Your task to perform on an android device: check google app version Image 0: 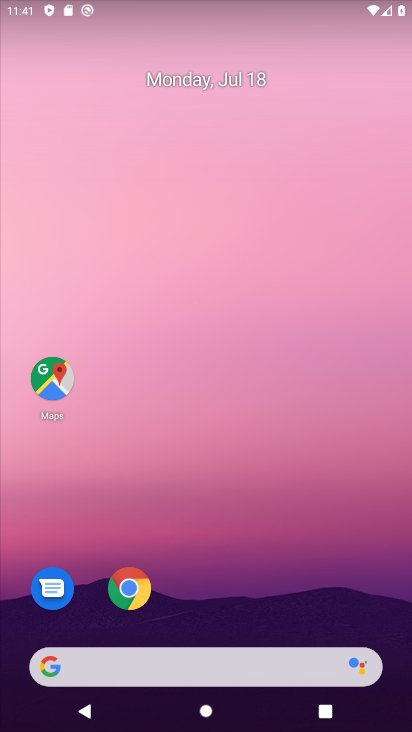
Step 0: drag from (243, 376) to (174, 371)
Your task to perform on an android device: check google app version Image 1: 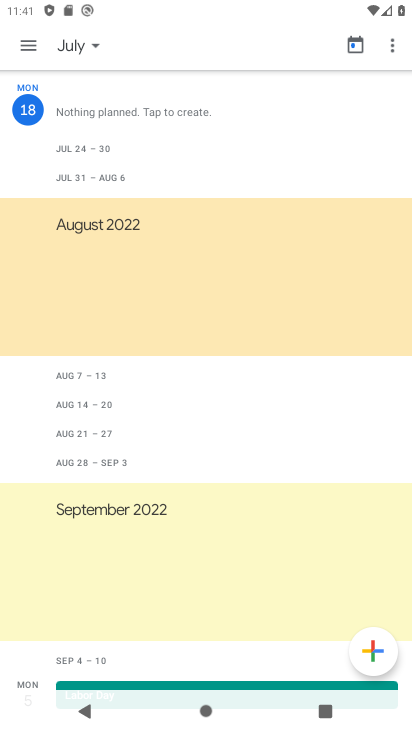
Step 1: click (161, 383)
Your task to perform on an android device: check google app version Image 2: 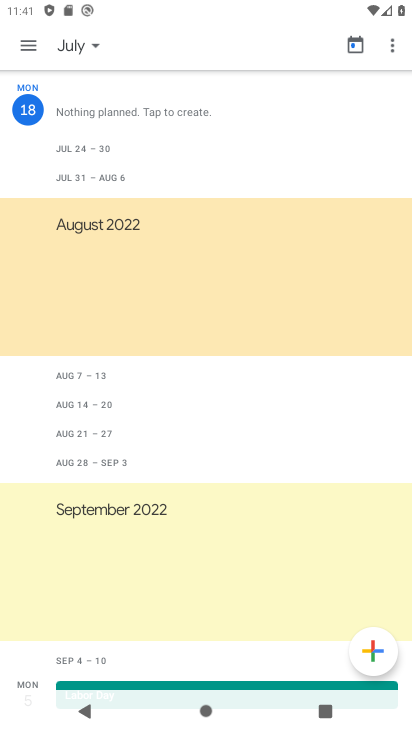
Step 2: click (160, 382)
Your task to perform on an android device: check google app version Image 3: 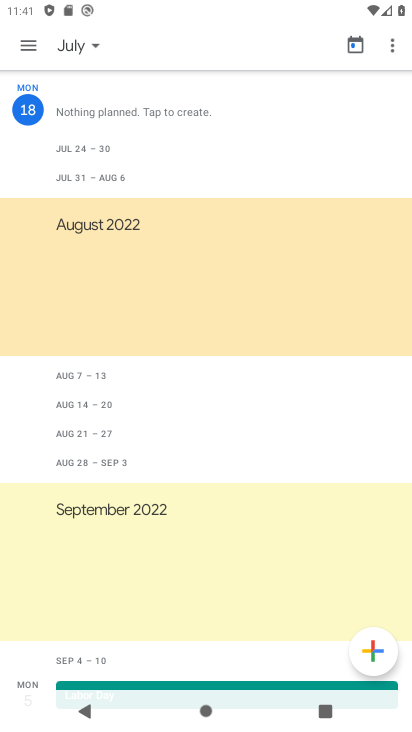
Step 3: press back button
Your task to perform on an android device: check google app version Image 4: 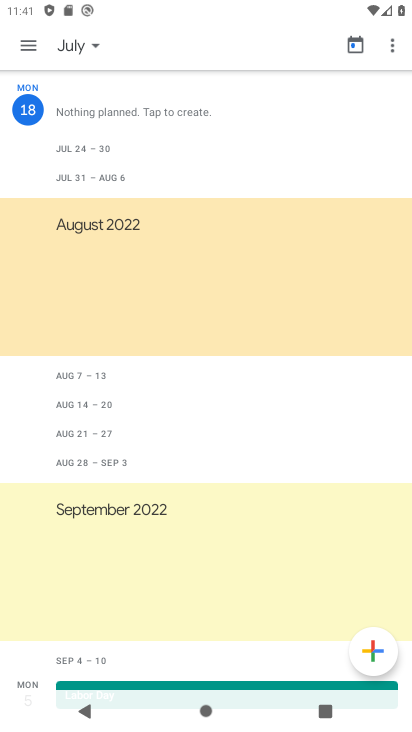
Step 4: press back button
Your task to perform on an android device: check google app version Image 5: 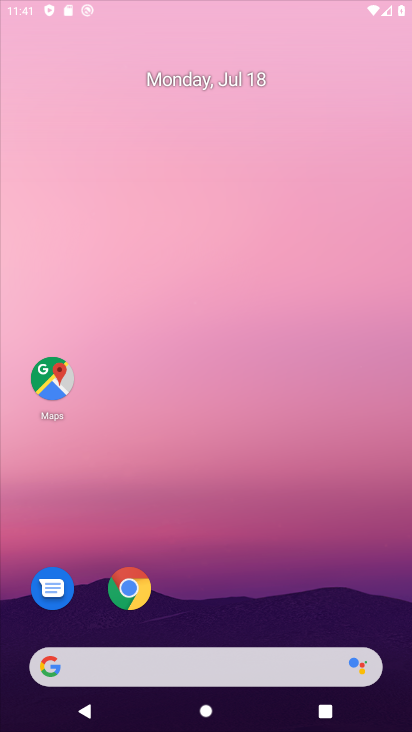
Step 5: press home button
Your task to perform on an android device: check google app version Image 6: 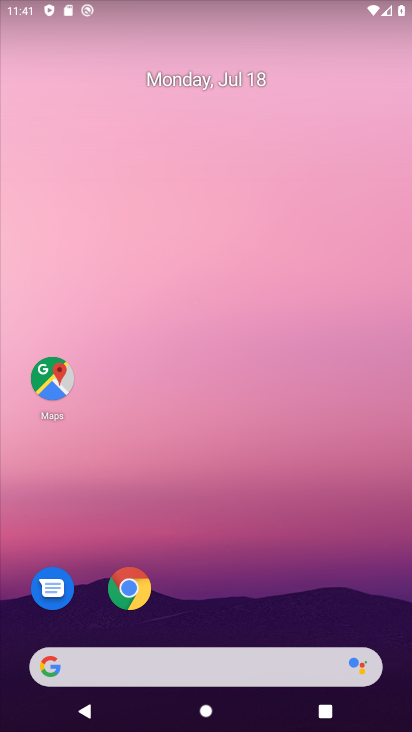
Step 6: press home button
Your task to perform on an android device: check google app version Image 7: 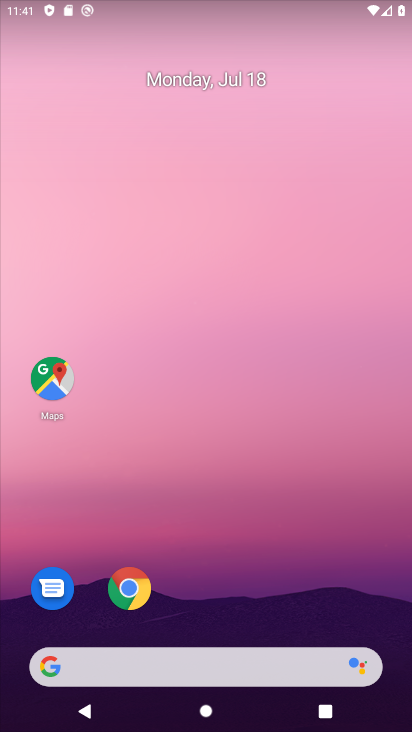
Step 7: drag from (219, 468) to (224, 269)
Your task to perform on an android device: check google app version Image 8: 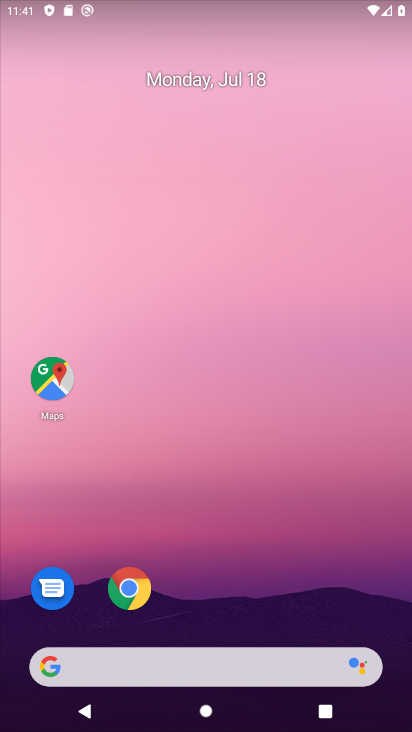
Step 8: drag from (251, 590) to (251, 139)
Your task to perform on an android device: check google app version Image 9: 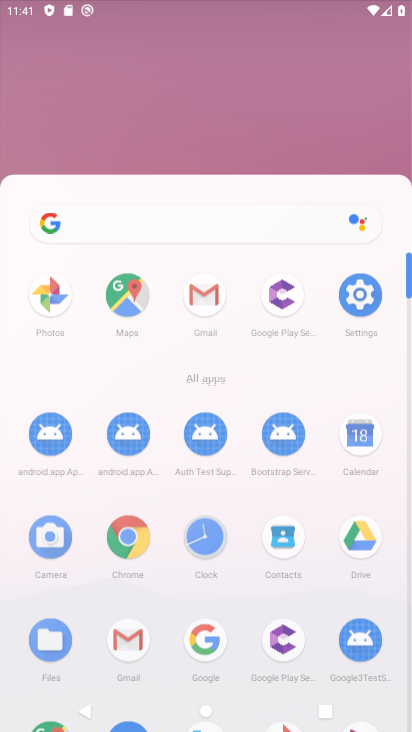
Step 9: drag from (196, 540) to (156, 96)
Your task to perform on an android device: check google app version Image 10: 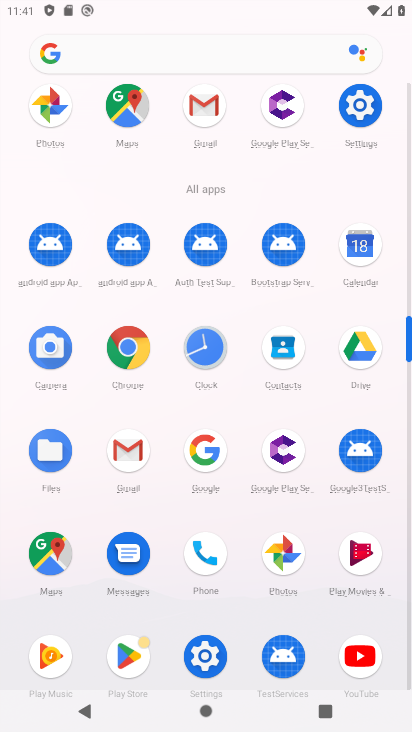
Step 10: click (213, 451)
Your task to perform on an android device: check google app version Image 11: 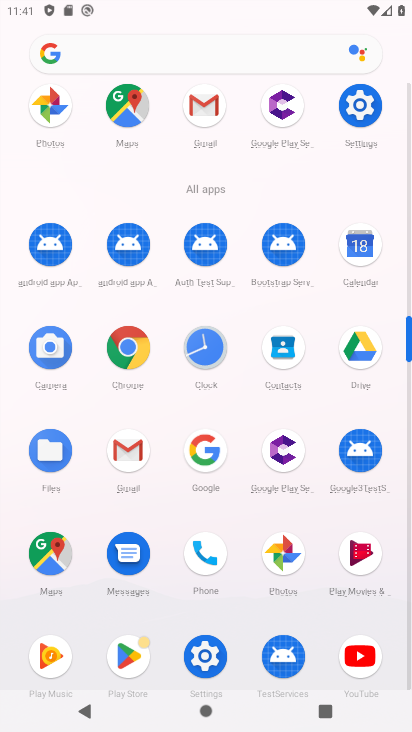
Step 11: click (212, 447)
Your task to perform on an android device: check google app version Image 12: 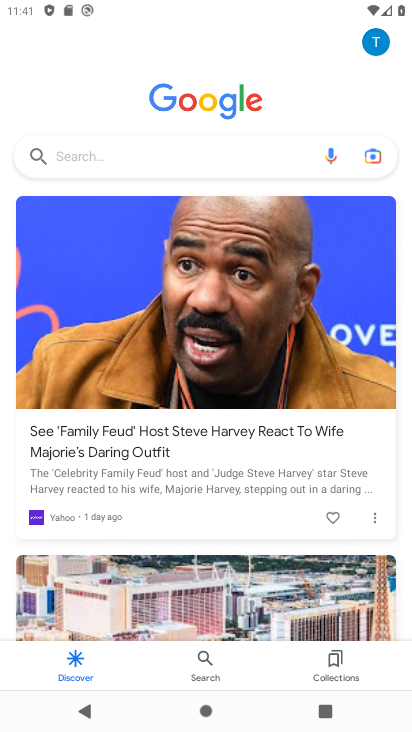
Step 12: drag from (375, 46) to (397, 297)
Your task to perform on an android device: check google app version Image 13: 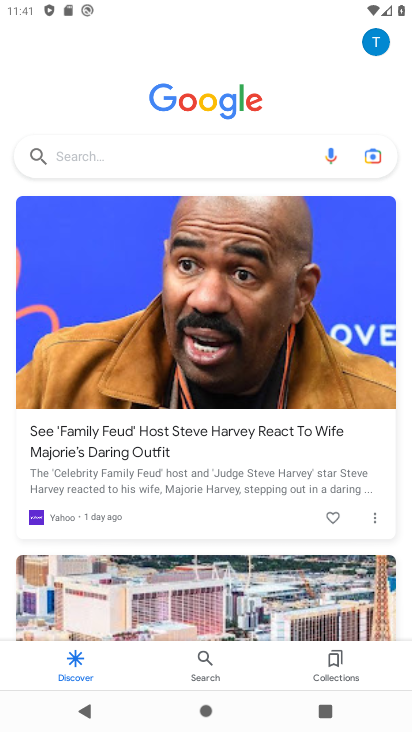
Step 13: drag from (376, 66) to (362, 352)
Your task to perform on an android device: check google app version Image 14: 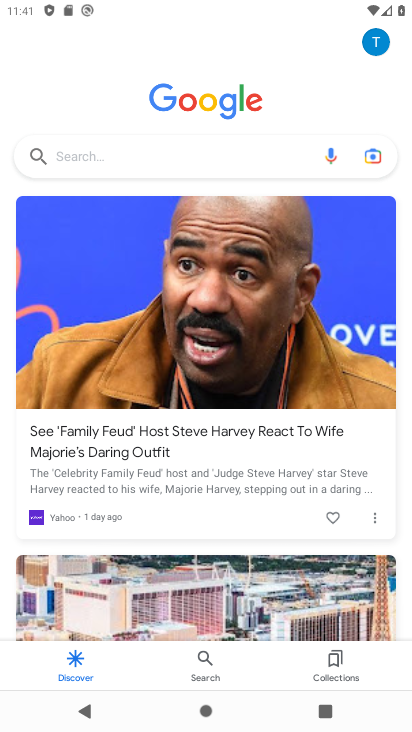
Step 14: drag from (374, 50) to (352, 373)
Your task to perform on an android device: check google app version Image 15: 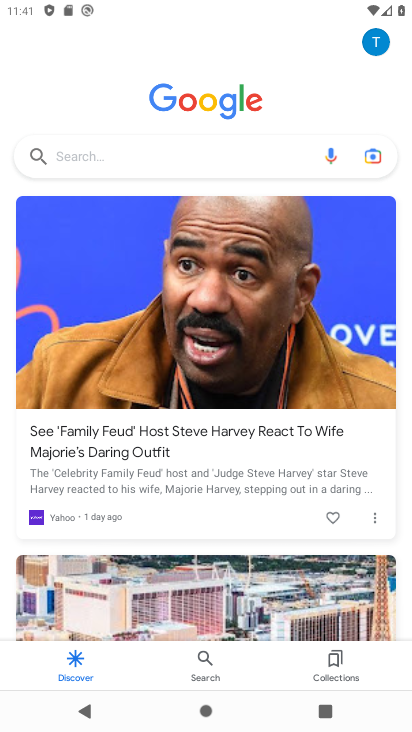
Step 15: drag from (335, 470) to (278, 697)
Your task to perform on an android device: check google app version Image 16: 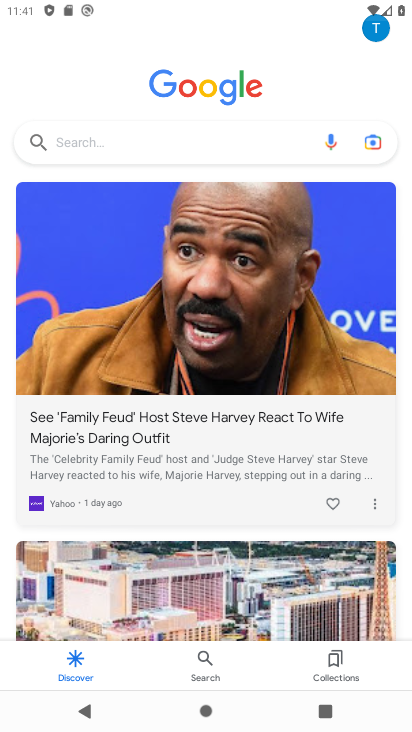
Step 16: drag from (279, 447) to (246, 718)
Your task to perform on an android device: check google app version Image 17: 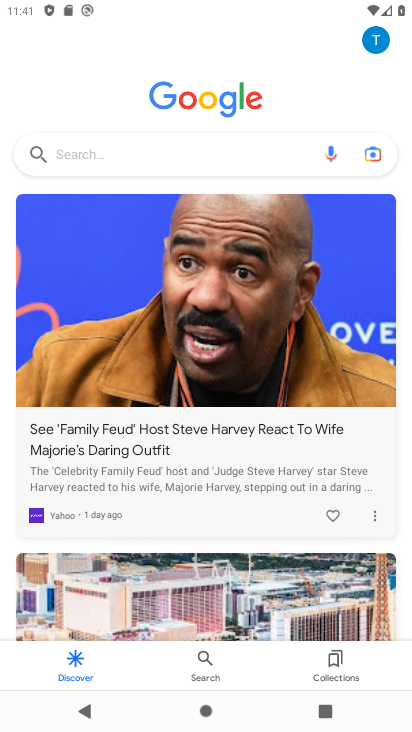
Step 17: drag from (308, 58) to (309, 405)
Your task to perform on an android device: check google app version Image 18: 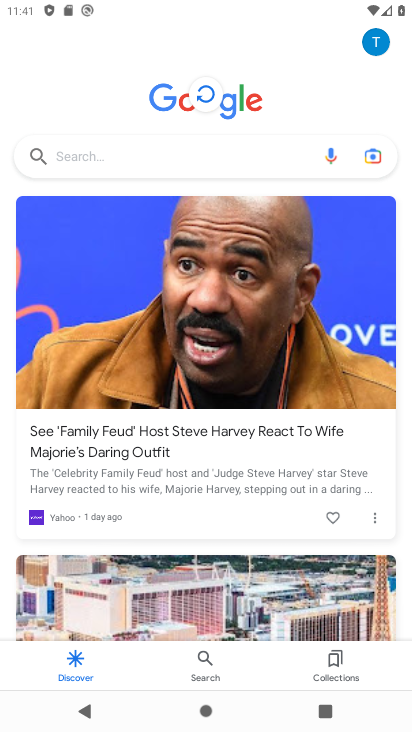
Step 18: click (303, 427)
Your task to perform on an android device: check google app version Image 19: 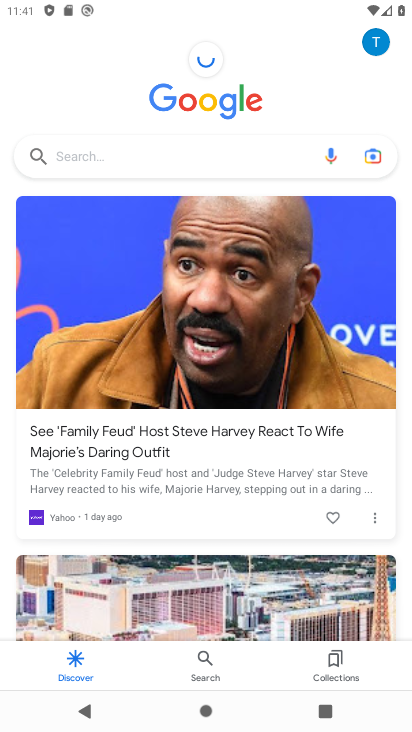
Step 19: drag from (385, 25) to (363, 414)
Your task to perform on an android device: check google app version Image 20: 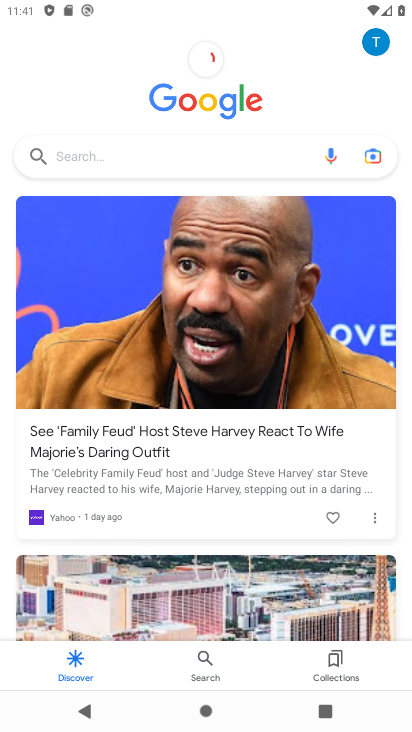
Step 20: click (349, 437)
Your task to perform on an android device: check google app version Image 21: 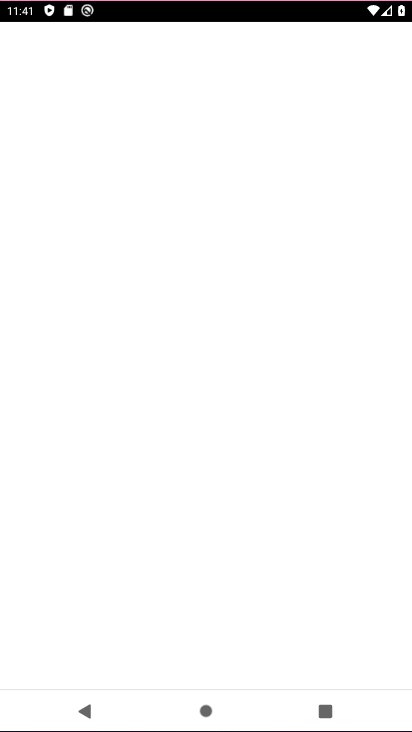
Step 21: drag from (257, 59) to (229, 417)
Your task to perform on an android device: check google app version Image 22: 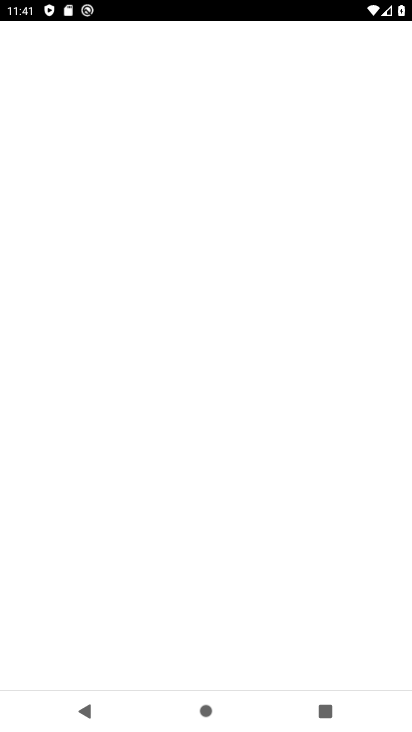
Step 22: drag from (251, 40) to (236, 433)
Your task to perform on an android device: check google app version Image 23: 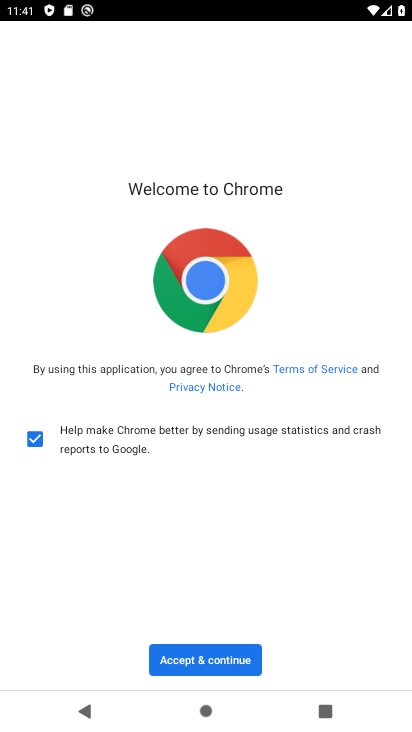
Step 23: click (209, 662)
Your task to perform on an android device: check google app version Image 24: 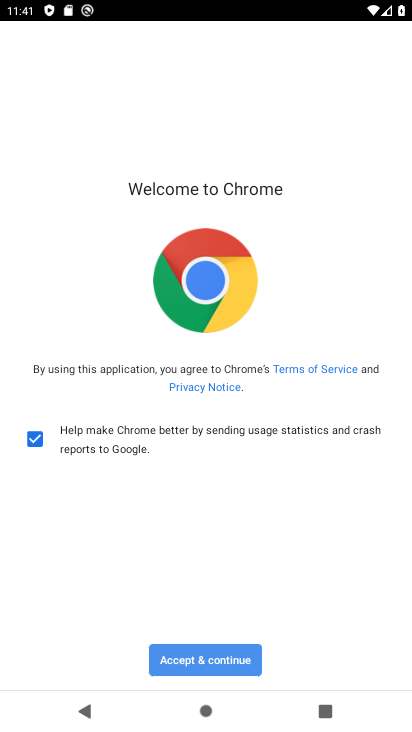
Step 24: click (231, 656)
Your task to perform on an android device: check google app version Image 25: 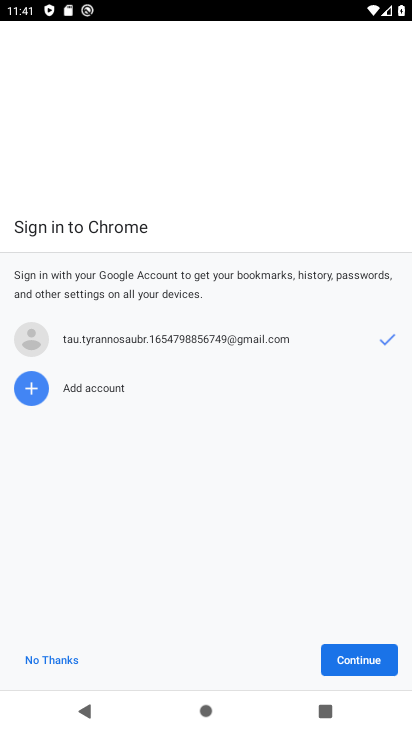
Step 25: task complete